Your task to perform on an android device: Open the phone app and click the voicemail tab. Image 0: 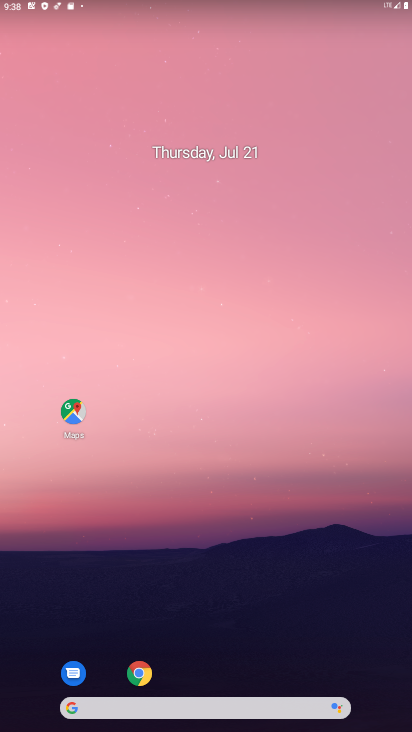
Step 0: drag from (212, 648) to (251, 183)
Your task to perform on an android device: Open the phone app and click the voicemail tab. Image 1: 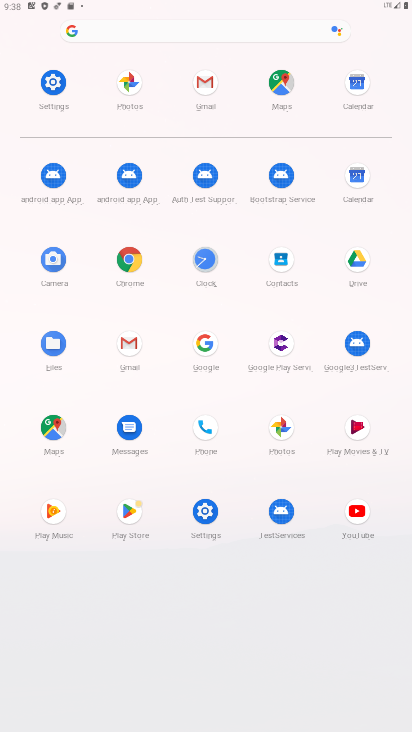
Step 1: click (202, 431)
Your task to perform on an android device: Open the phone app and click the voicemail tab. Image 2: 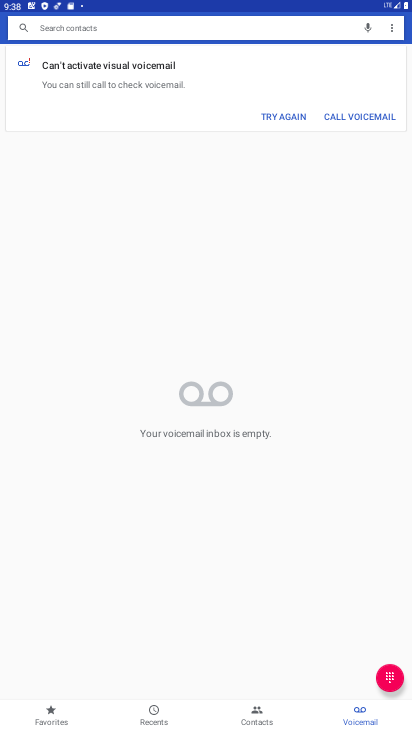
Step 2: task complete